Your task to perform on an android device: Go to Google Image 0: 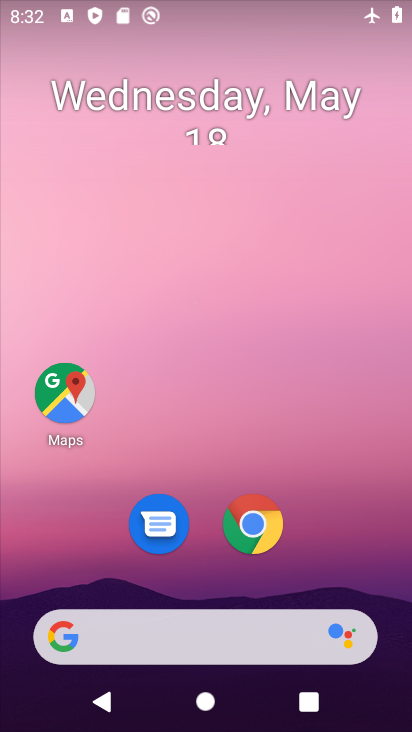
Step 0: click (202, 645)
Your task to perform on an android device: Go to Google Image 1: 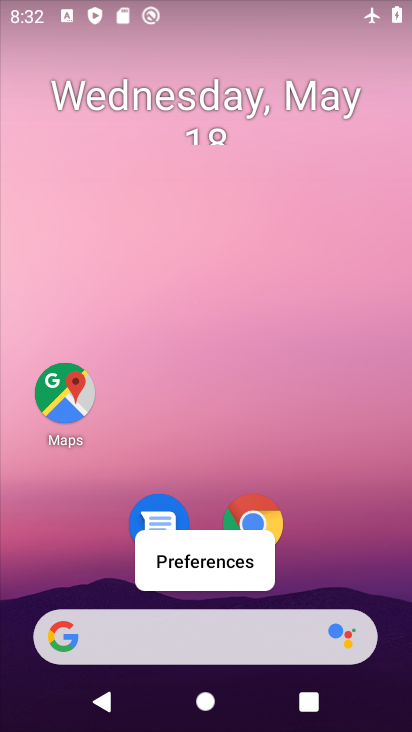
Step 1: click (202, 643)
Your task to perform on an android device: Go to Google Image 2: 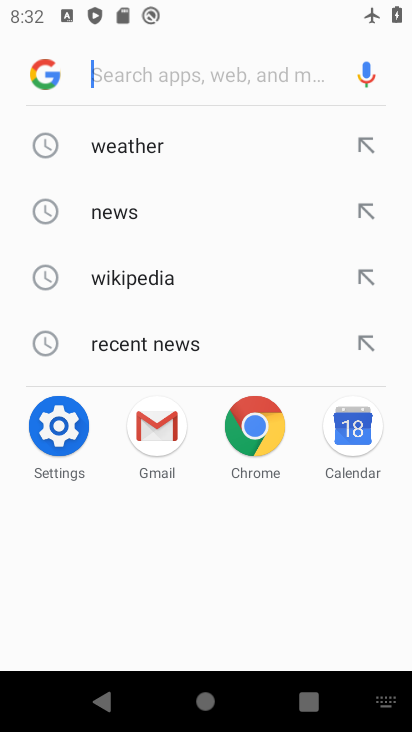
Step 2: click (50, 75)
Your task to perform on an android device: Go to Google Image 3: 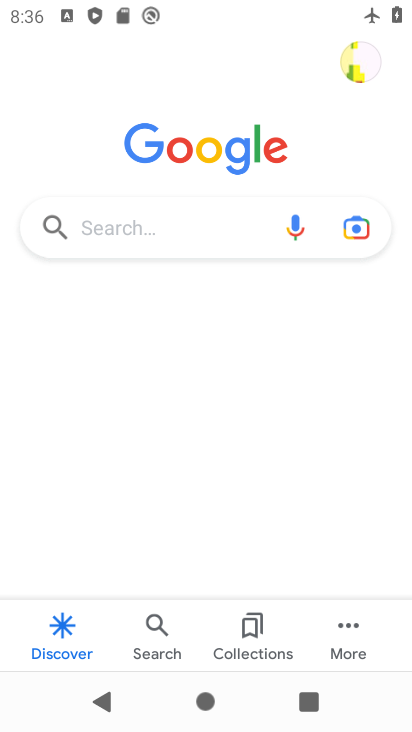
Step 3: task complete